Your task to perform on an android device: Set the phone to "Do not disturb". Image 0: 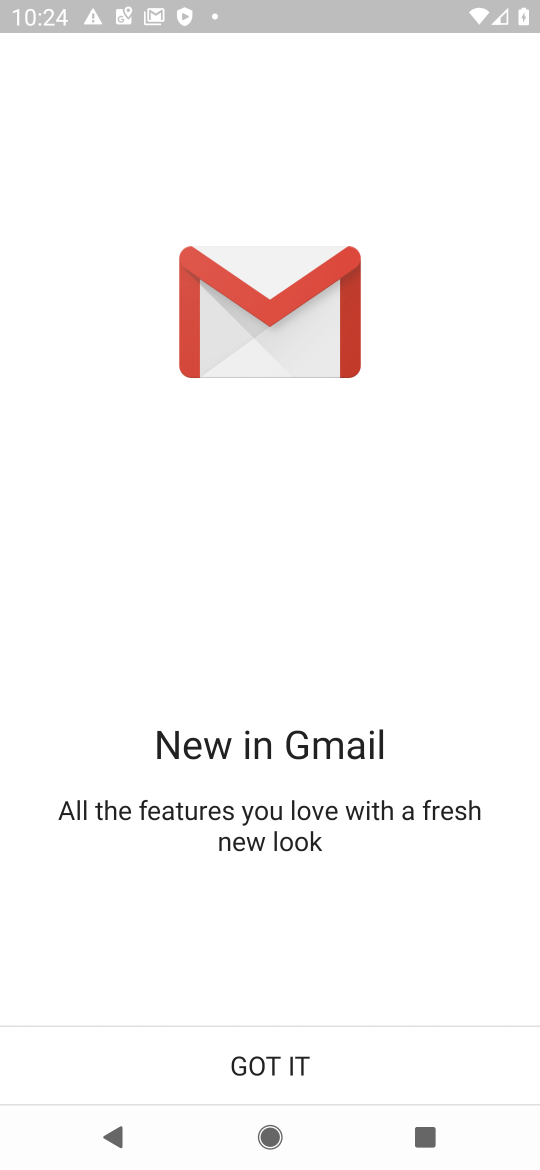
Step 0: press home button
Your task to perform on an android device: Set the phone to "Do not disturb". Image 1: 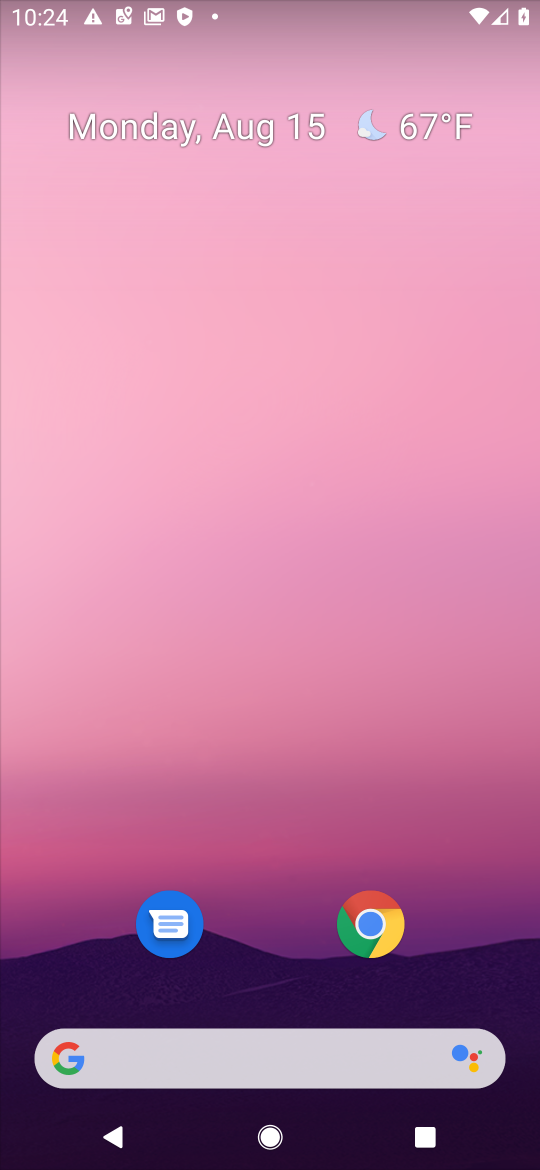
Step 1: drag from (502, 992) to (476, 145)
Your task to perform on an android device: Set the phone to "Do not disturb". Image 2: 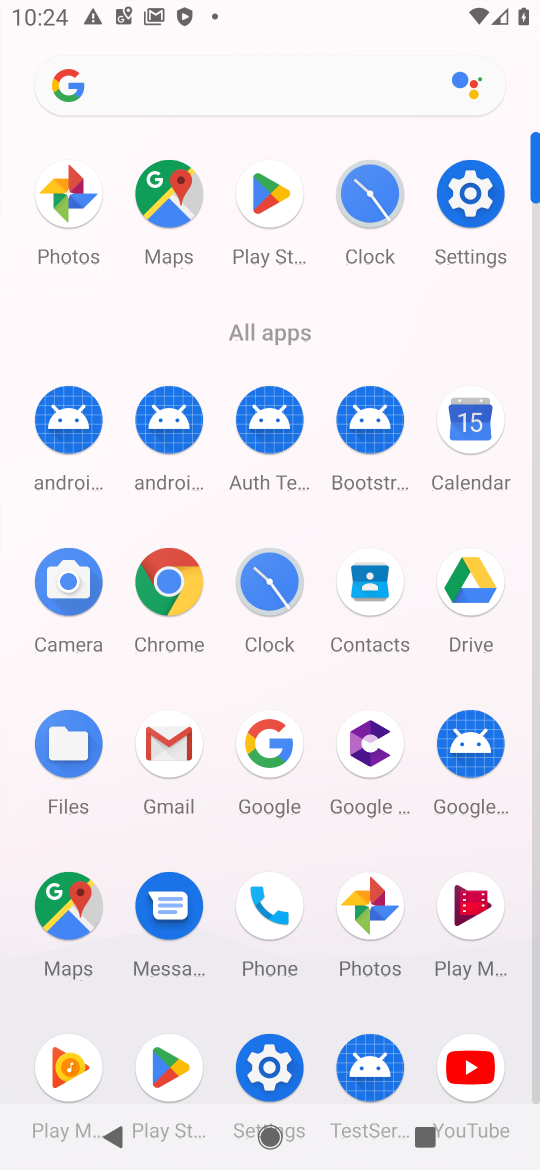
Step 2: click (270, 1067)
Your task to perform on an android device: Set the phone to "Do not disturb". Image 3: 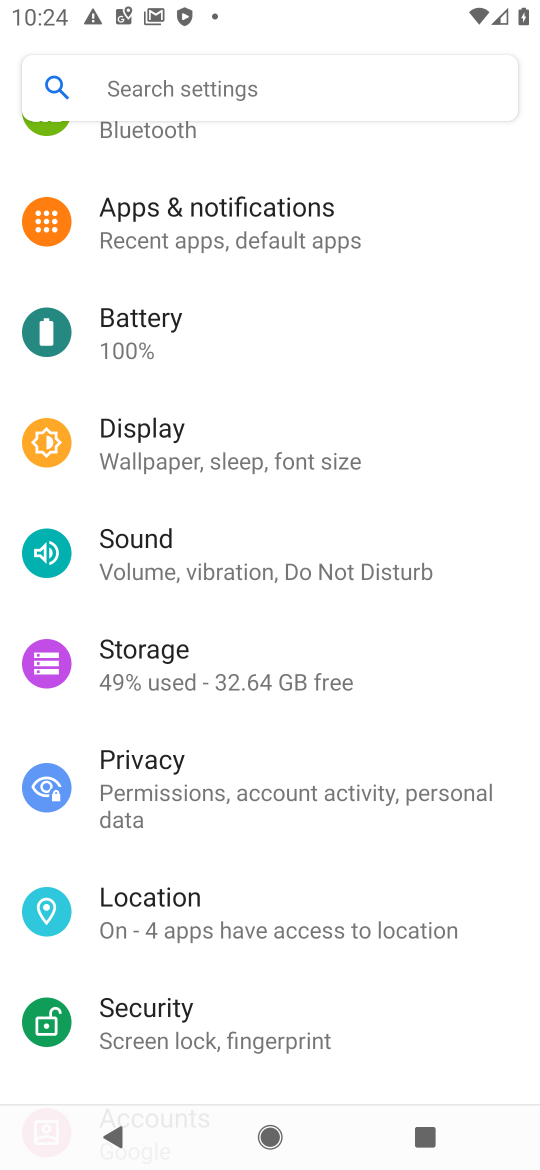
Step 3: click (171, 572)
Your task to perform on an android device: Set the phone to "Do not disturb". Image 4: 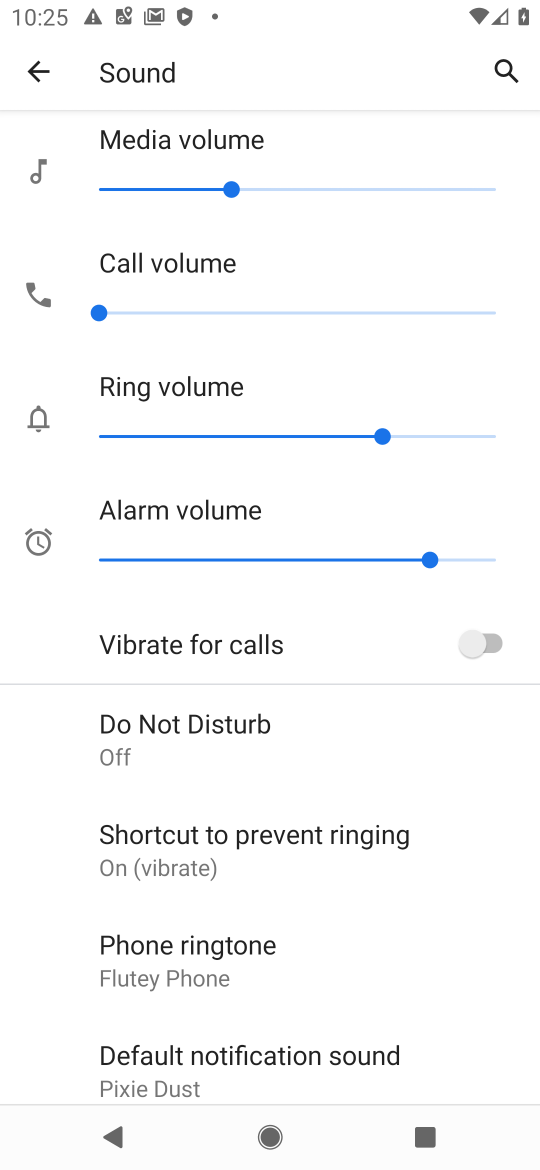
Step 4: click (172, 742)
Your task to perform on an android device: Set the phone to "Do not disturb". Image 5: 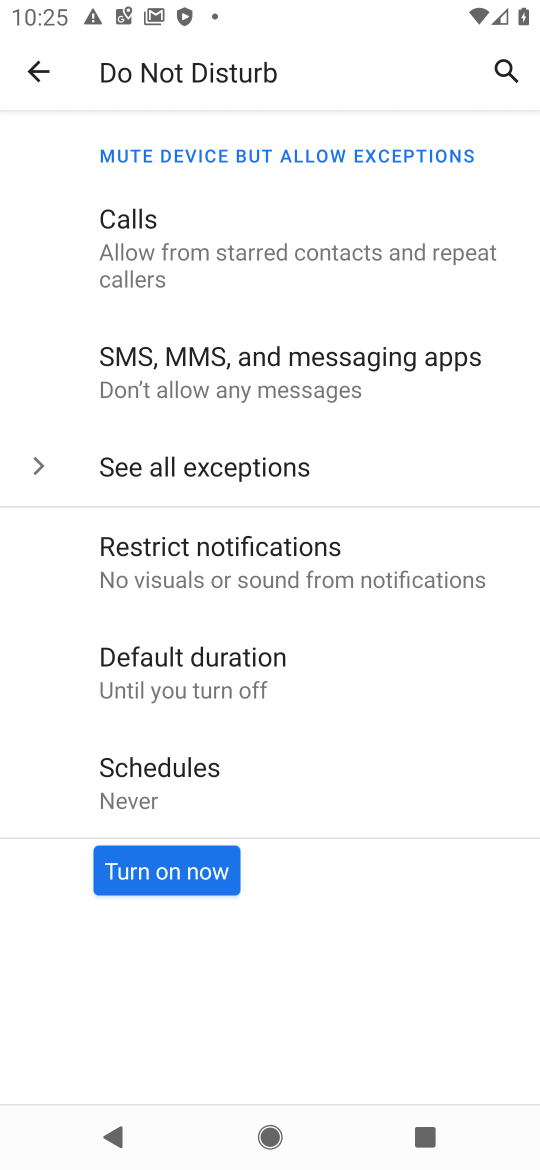
Step 5: click (169, 868)
Your task to perform on an android device: Set the phone to "Do not disturb". Image 6: 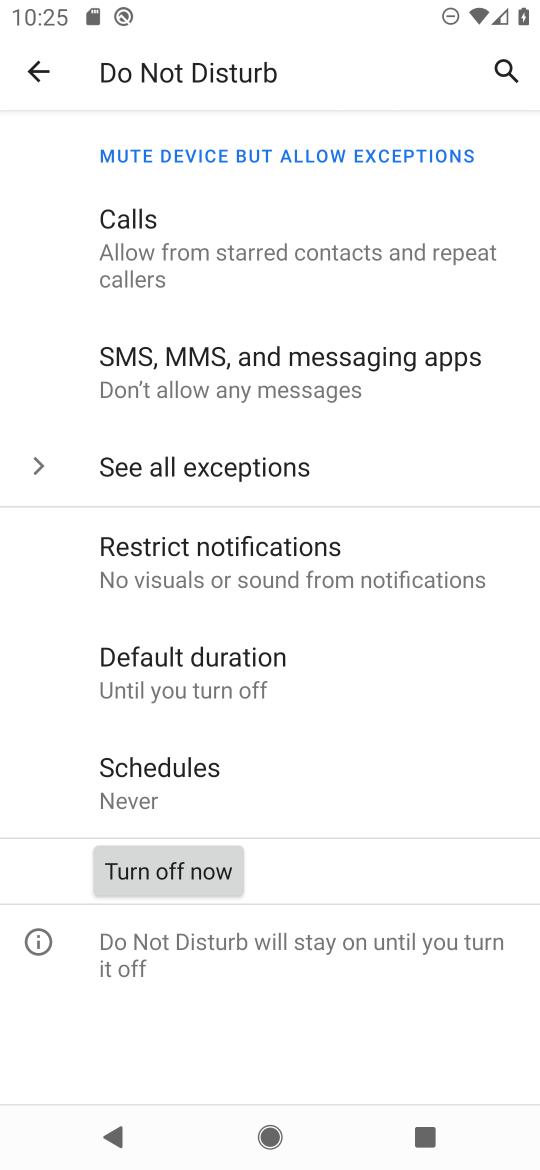
Step 6: task complete